Your task to perform on an android device: Clear the cart on newegg. Search for logitech g933 on newegg, select the first entry, and add it to the cart. Image 0: 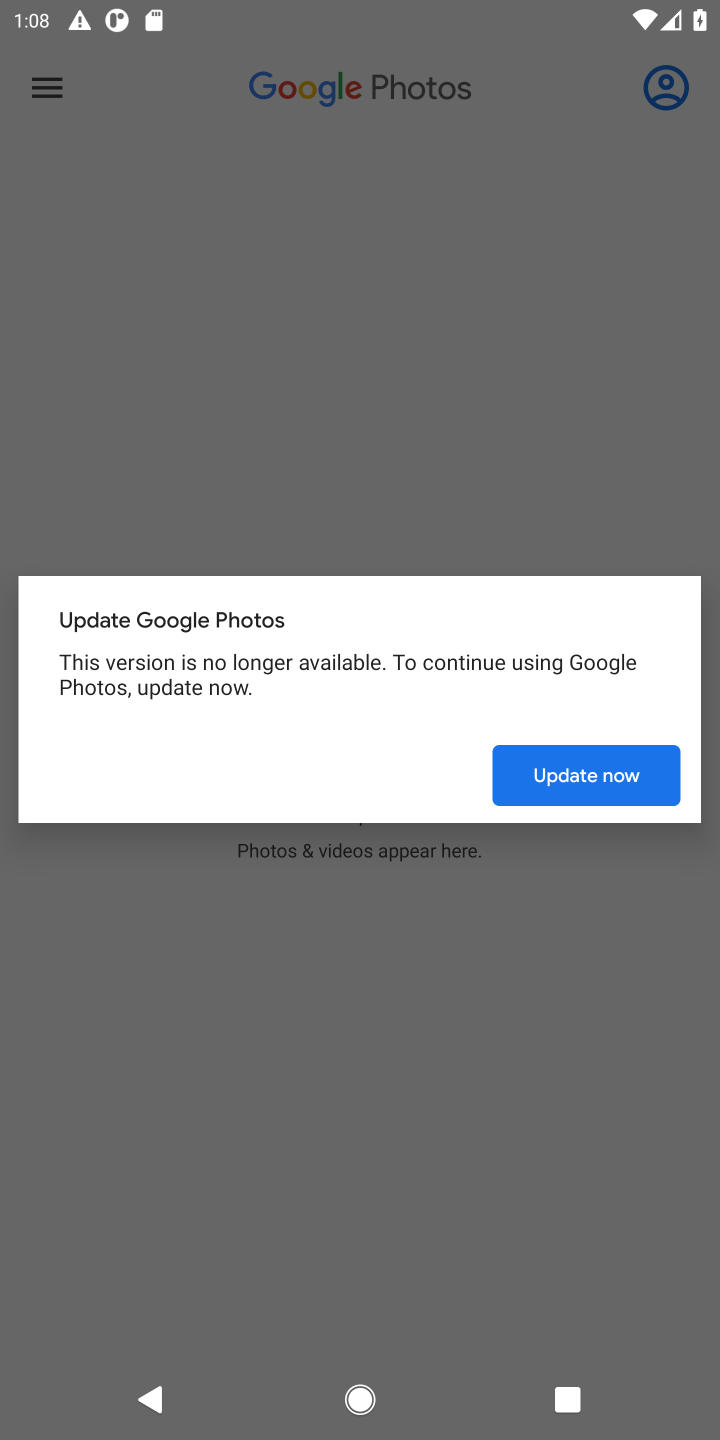
Step 0: press home button
Your task to perform on an android device: Clear the cart on newegg. Search for logitech g933 on newegg, select the first entry, and add it to the cart. Image 1: 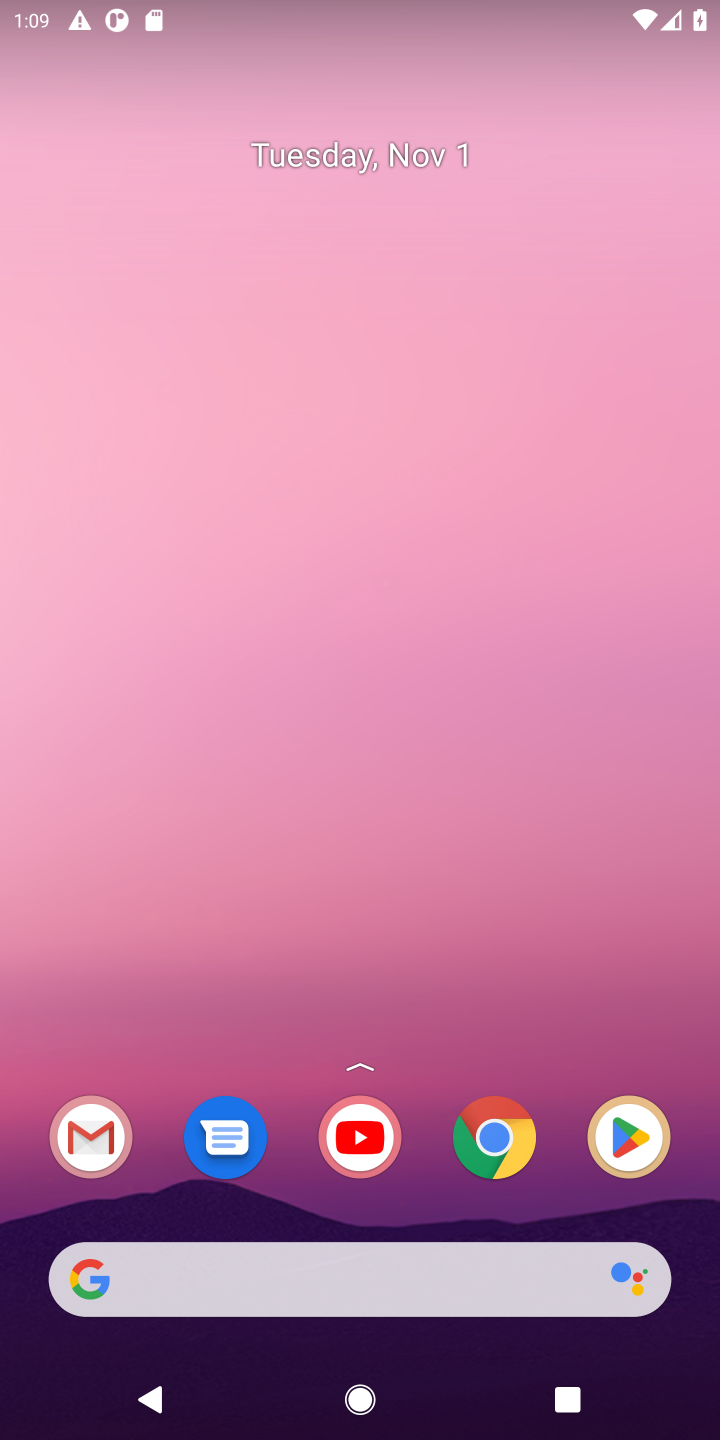
Step 1: drag from (361, 1162) to (150, 215)
Your task to perform on an android device: Clear the cart on newegg. Search for logitech g933 on newegg, select the first entry, and add it to the cart. Image 2: 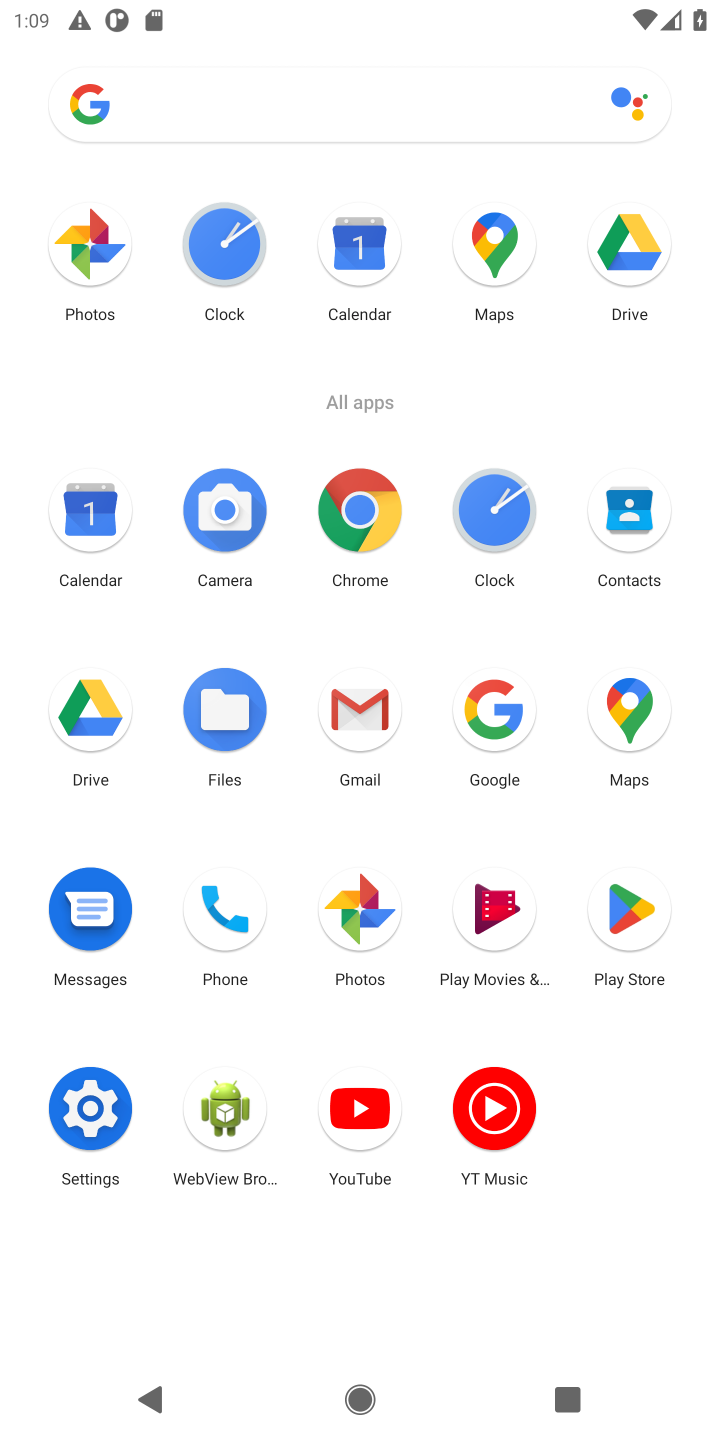
Step 2: click (354, 511)
Your task to perform on an android device: Clear the cart on newegg. Search for logitech g933 on newegg, select the first entry, and add it to the cart. Image 3: 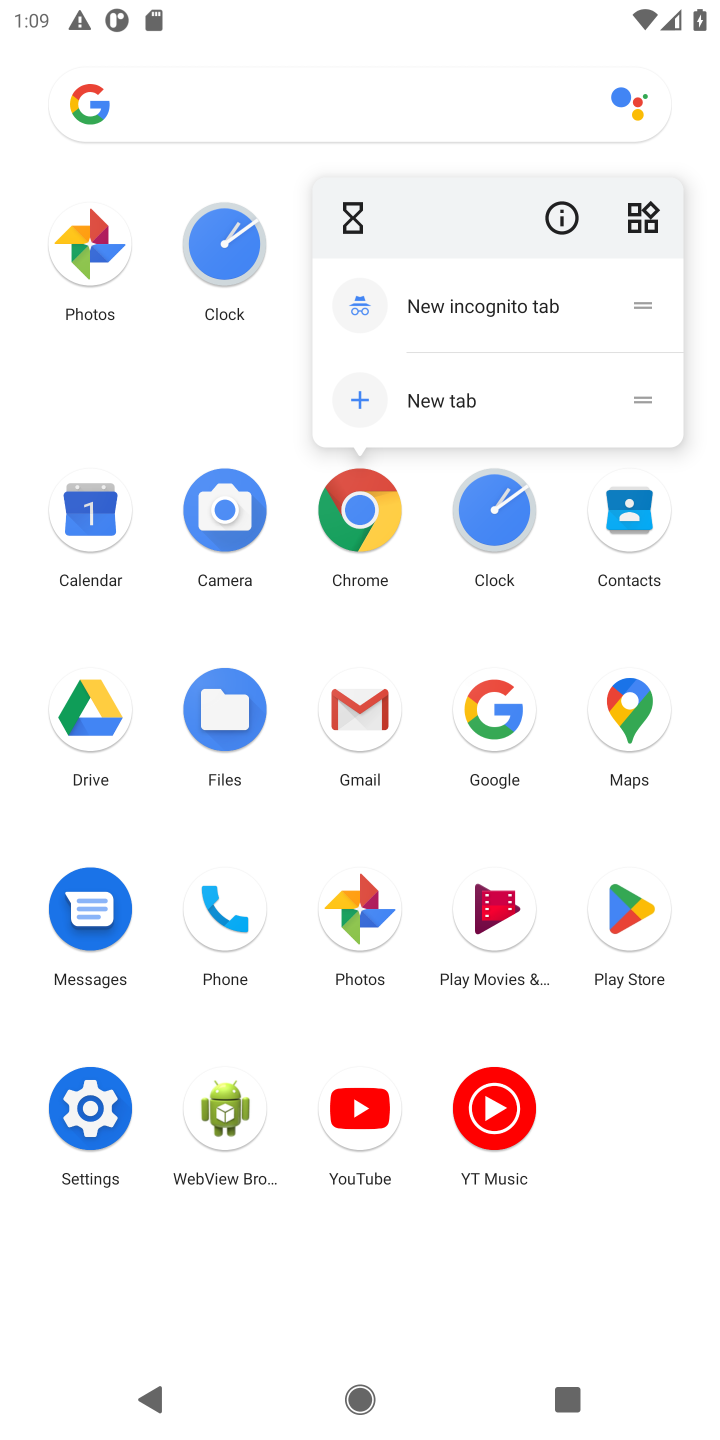
Step 3: click (367, 526)
Your task to perform on an android device: Clear the cart on newegg. Search for logitech g933 on newegg, select the first entry, and add it to the cart. Image 4: 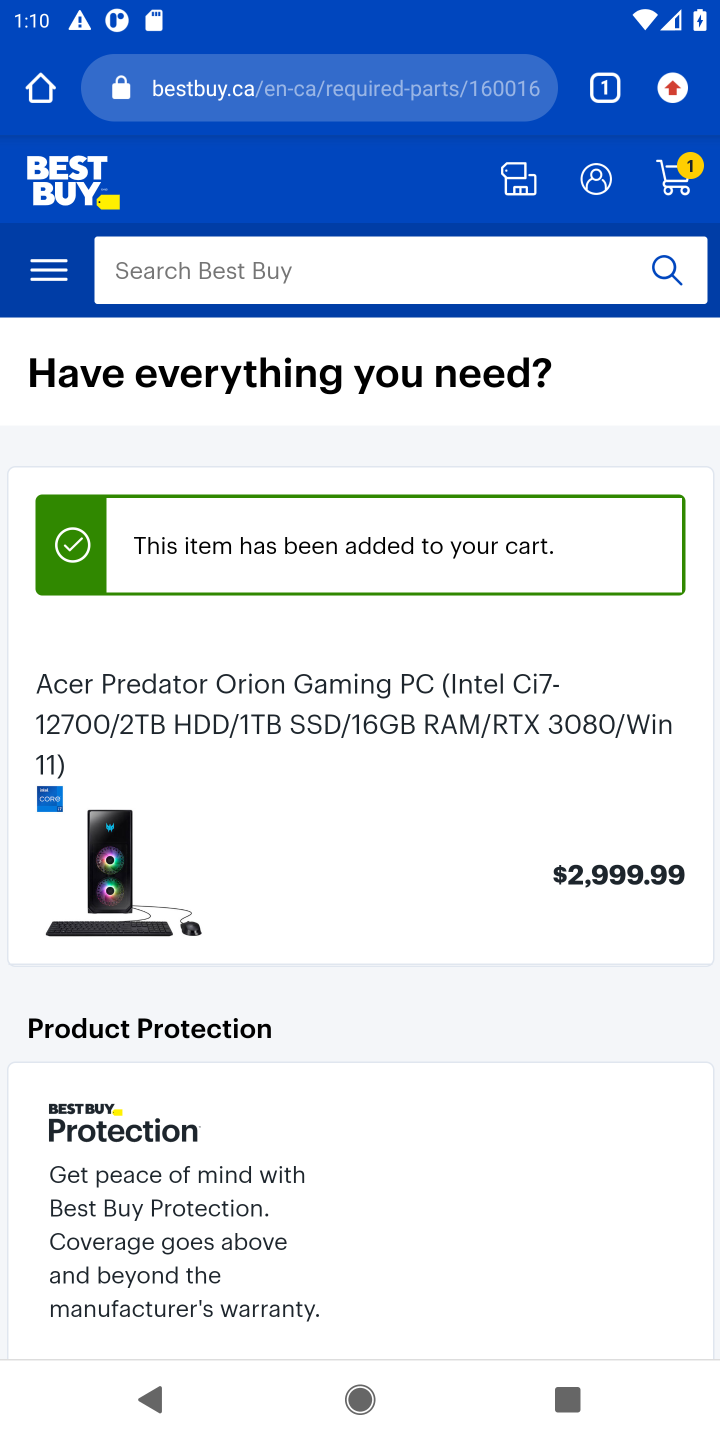
Step 4: click (265, 116)
Your task to perform on an android device: Clear the cart on newegg. Search for logitech g933 on newegg, select the first entry, and add it to the cart. Image 5: 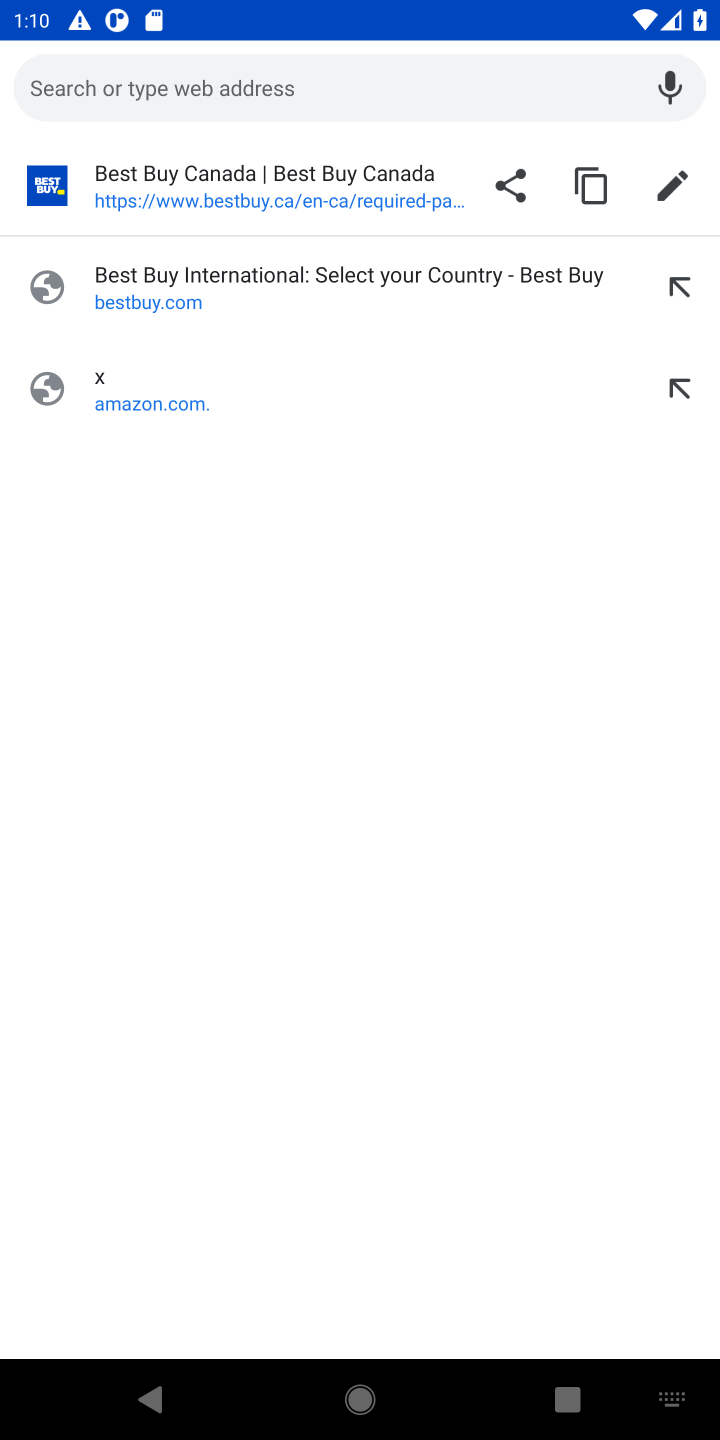
Step 5: type "newegg"
Your task to perform on an android device: Clear the cart on newegg. Search for logitech g933 on newegg, select the first entry, and add it to the cart. Image 6: 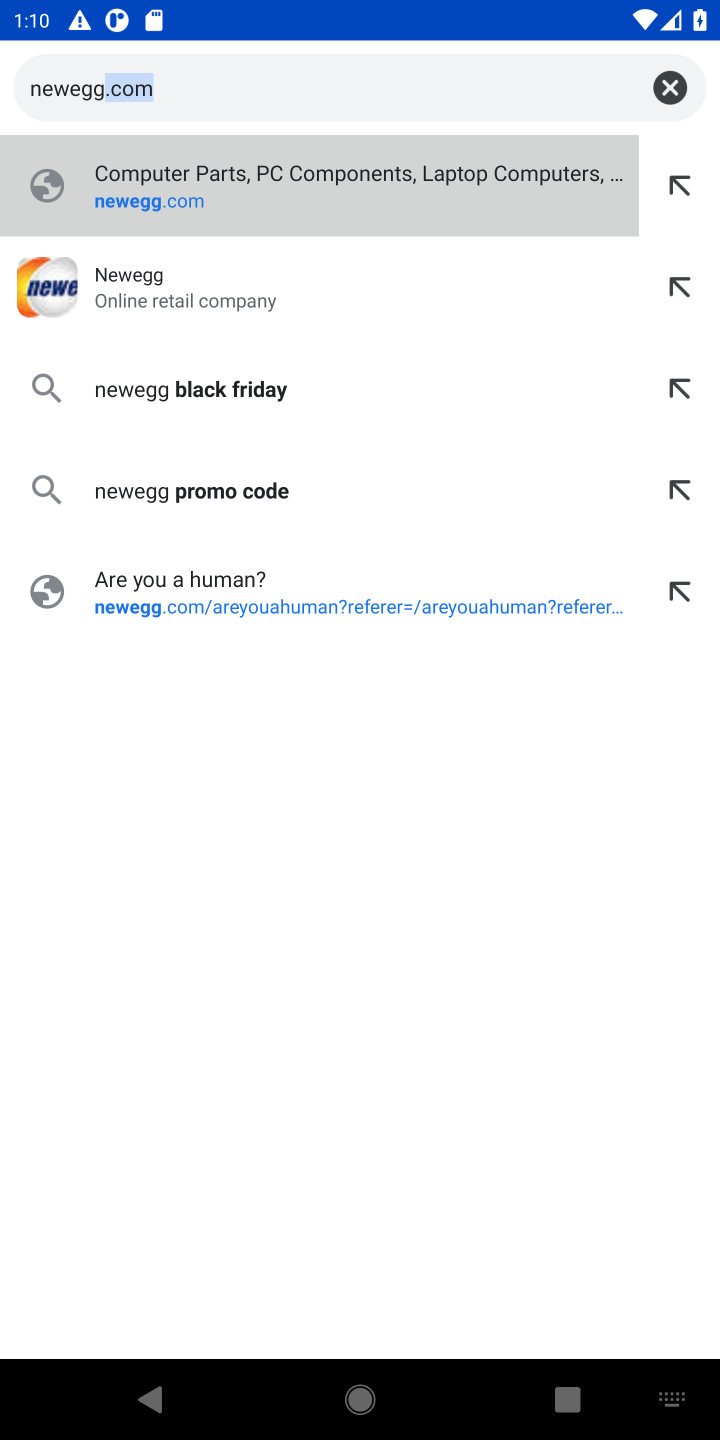
Step 6: press enter
Your task to perform on an android device: Clear the cart on newegg. Search for logitech g933 on newegg, select the first entry, and add it to the cart. Image 7: 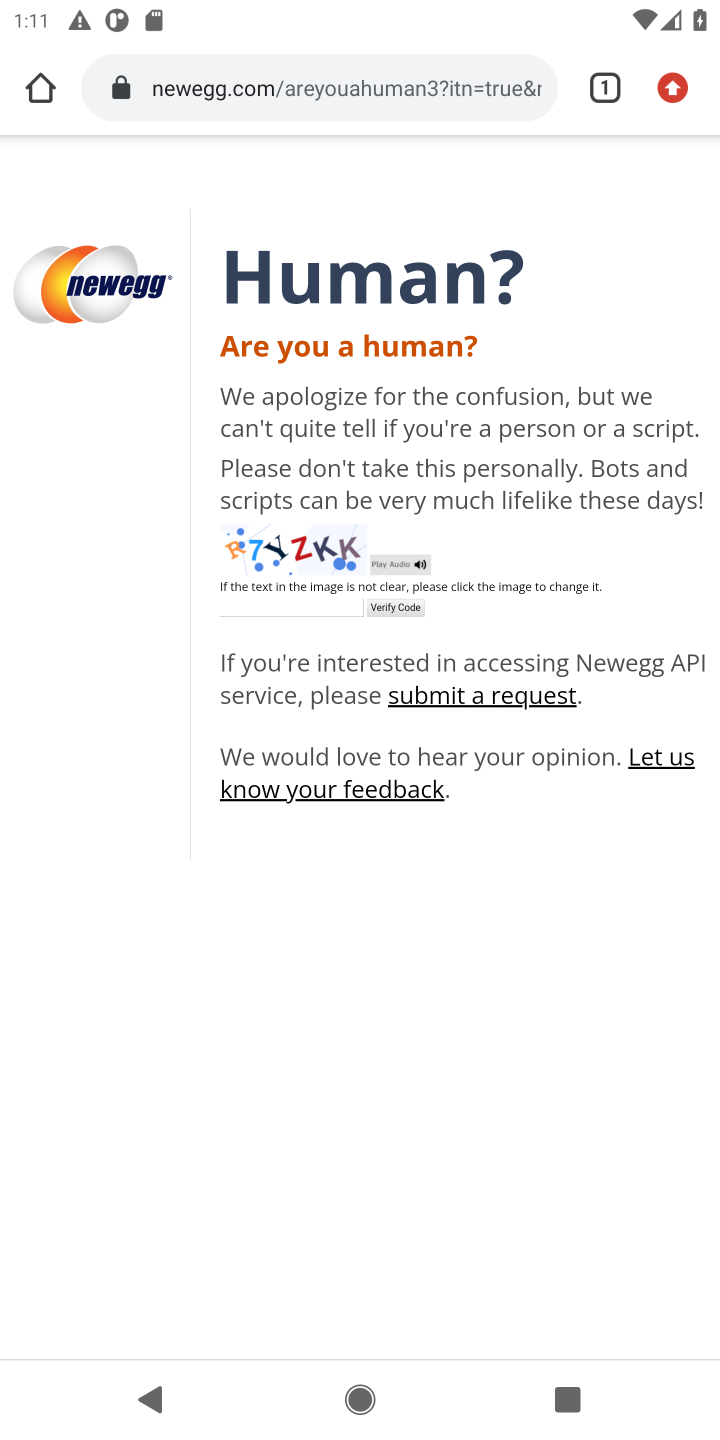
Step 7: click (135, 274)
Your task to perform on an android device: Clear the cart on newegg. Search for logitech g933 on newegg, select the first entry, and add it to the cart. Image 8: 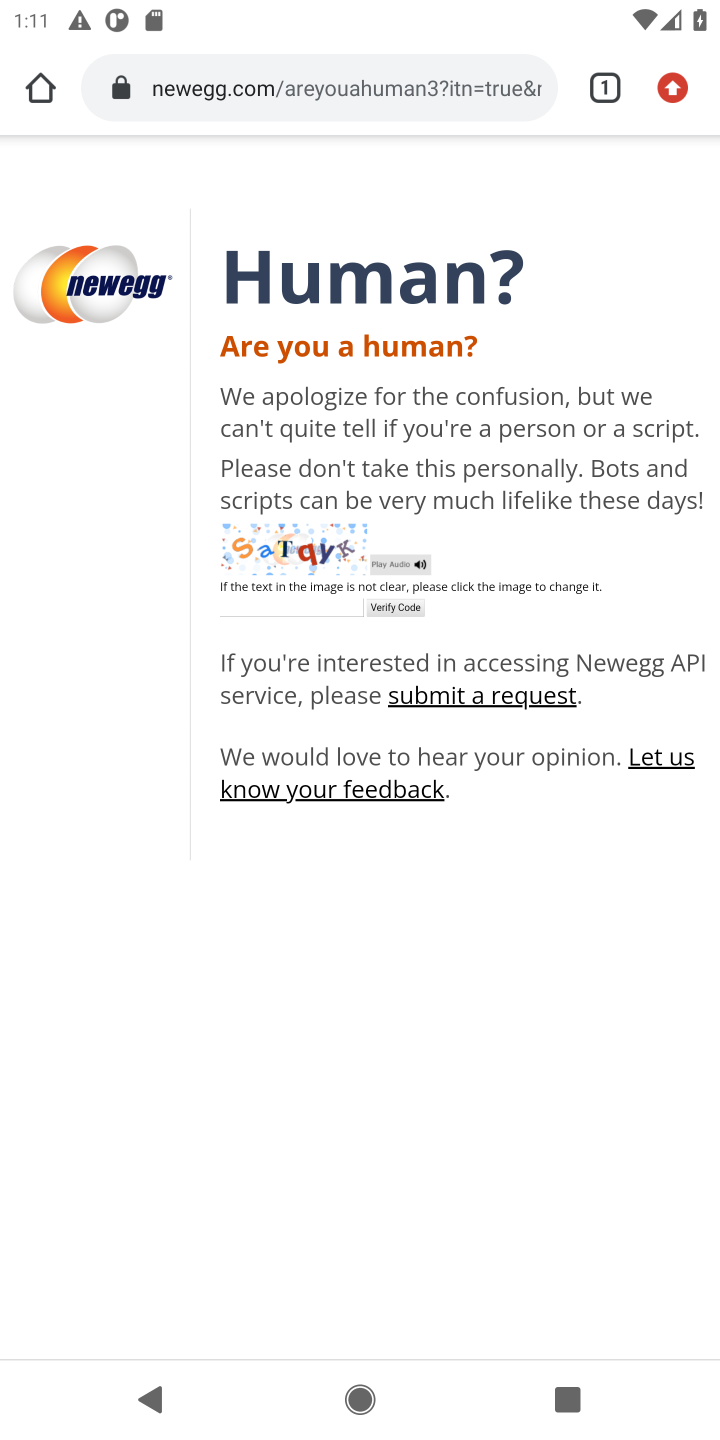
Step 8: task complete